Your task to perform on an android device: delete location history Image 0: 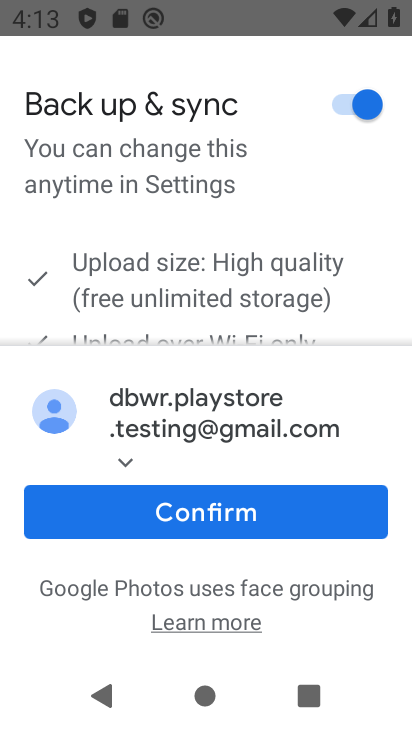
Step 0: press home button
Your task to perform on an android device: delete location history Image 1: 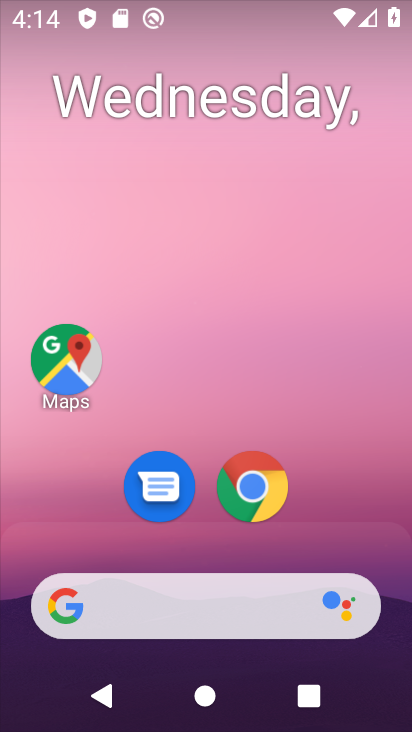
Step 1: click (66, 364)
Your task to perform on an android device: delete location history Image 2: 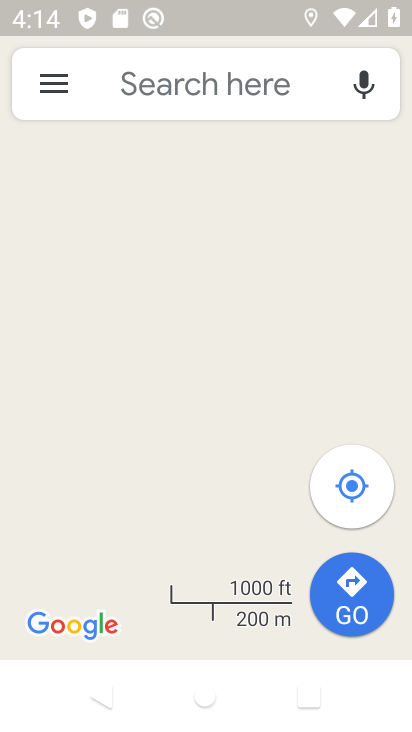
Step 2: click (50, 86)
Your task to perform on an android device: delete location history Image 3: 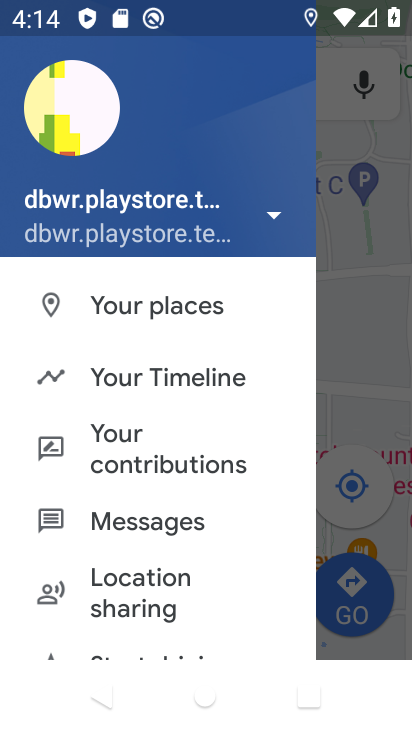
Step 3: drag from (122, 554) to (179, 385)
Your task to perform on an android device: delete location history Image 4: 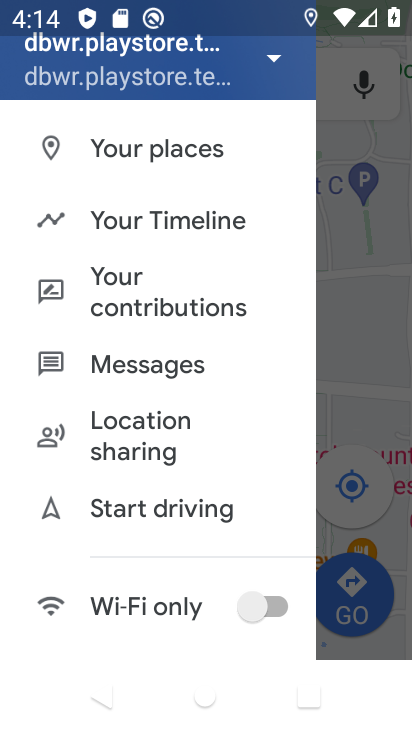
Step 4: drag from (128, 542) to (203, 402)
Your task to perform on an android device: delete location history Image 5: 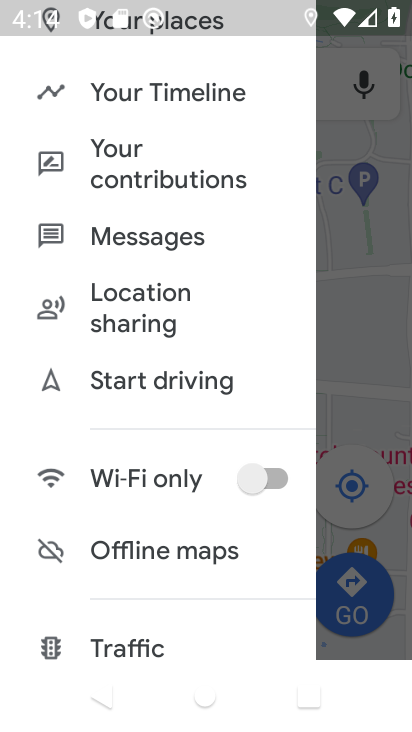
Step 5: drag from (144, 516) to (231, 372)
Your task to perform on an android device: delete location history Image 6: 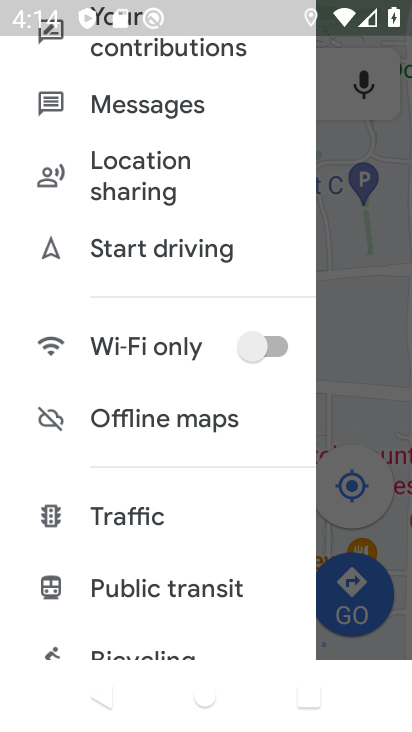
Step 6: drag from (136, 564) to (207, 346)
Your task to perform on an android device: delete location history Image 7: 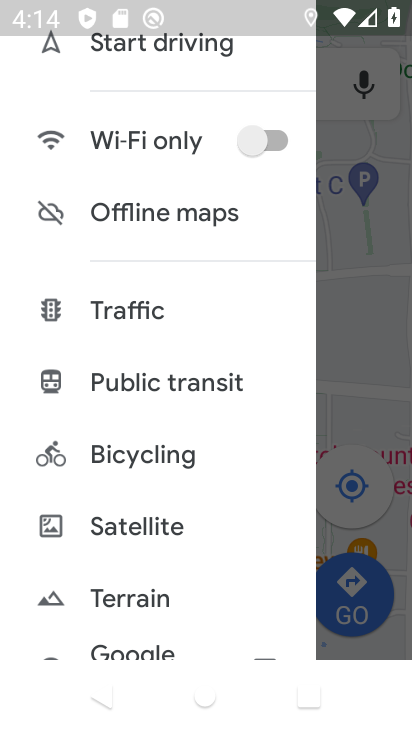
Step 7: drag from (136, 578) to (189, 430)
Your task to perform on an android device: delete location history Image 8: 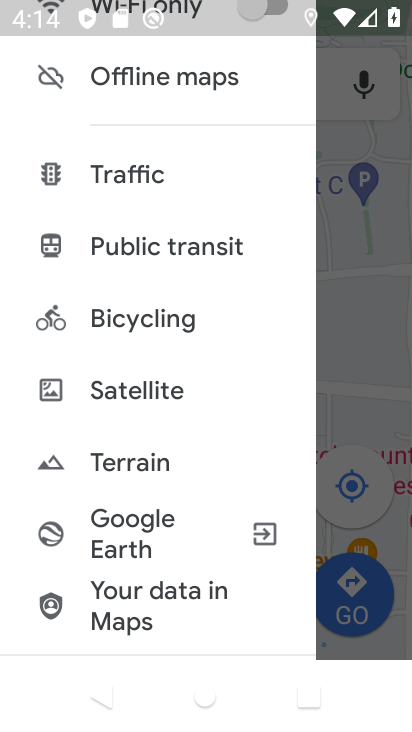
Step 8: drag from (139, 494) to (189, 395)
Your task to perform on an android device: delete location history Image 9: 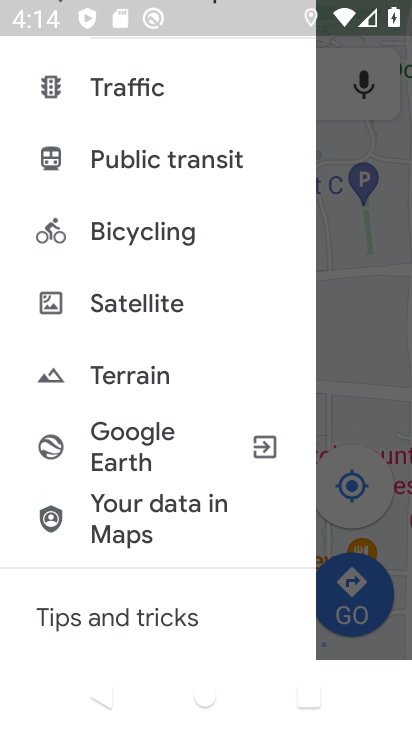
Step 9: drag from (114, 585) to (183, 373)
Your task to perform on an android device: delete location history Image 10: 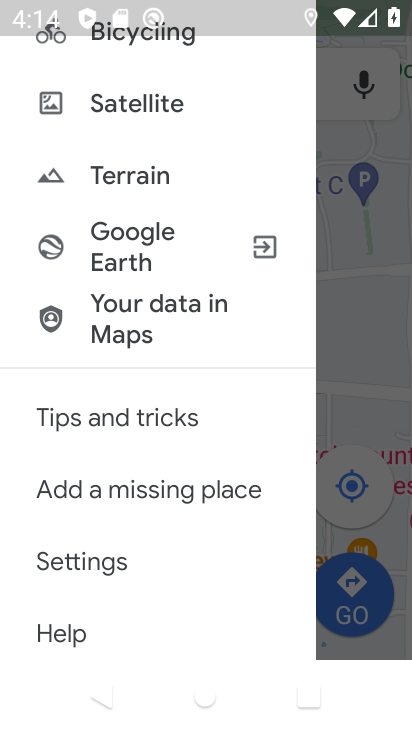
Step 10: click (95, 560)
Your task to perform on an android device: delete location history Image 11: 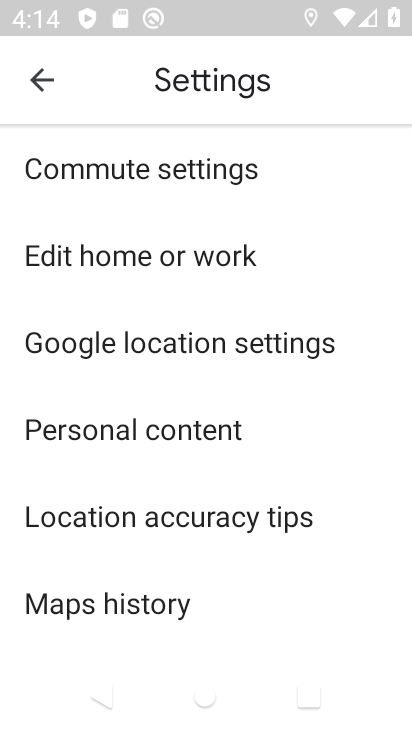
Step 11: click (163, 421)
Your task to perform on an android device: delete location history Image 12: 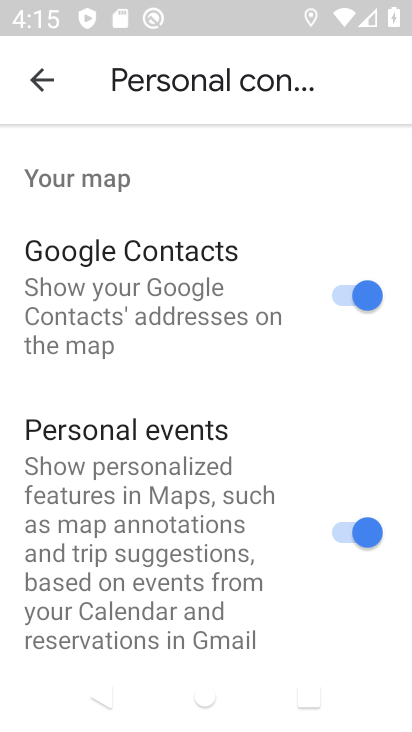
Step 12: drag from (146, 661) to (251, 419)
Your task to perform on an android device: delete location history Image 13: 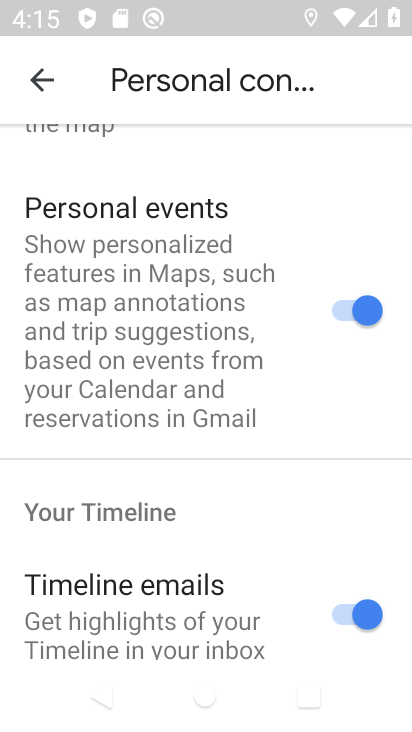
Step 13: drag from (157, 549) to (231, 301)
Your task to perform on an android device: delete location history Image 14: 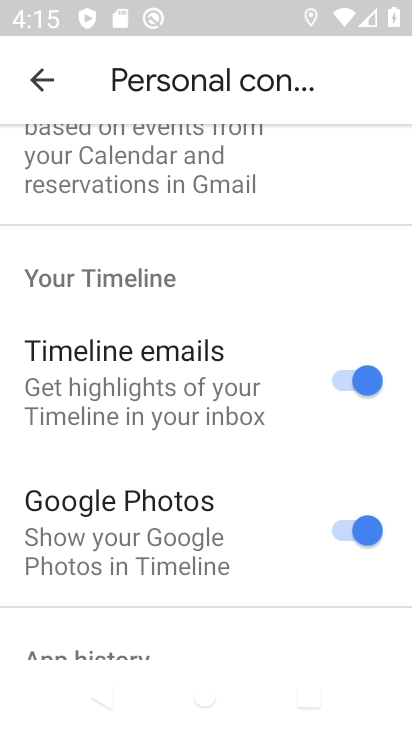
Step 14: drag from (147, 460) to (225, 258)
Your task to perform on an android device: delete location history Image 15: 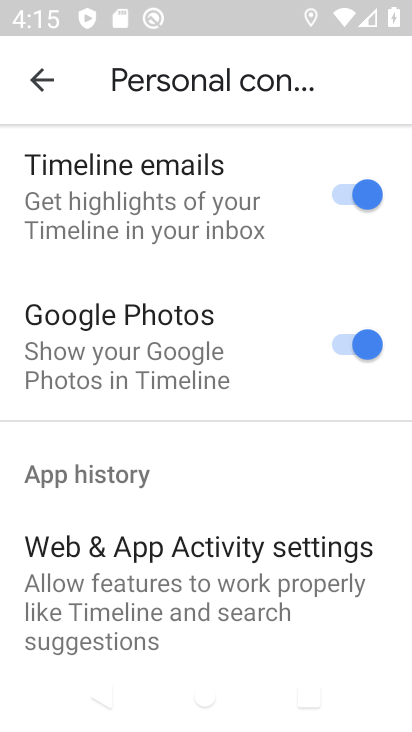
Step 15: drag from (173, 488) to (225, 219)
Your task to perform on an android device: delete location history Image 16: 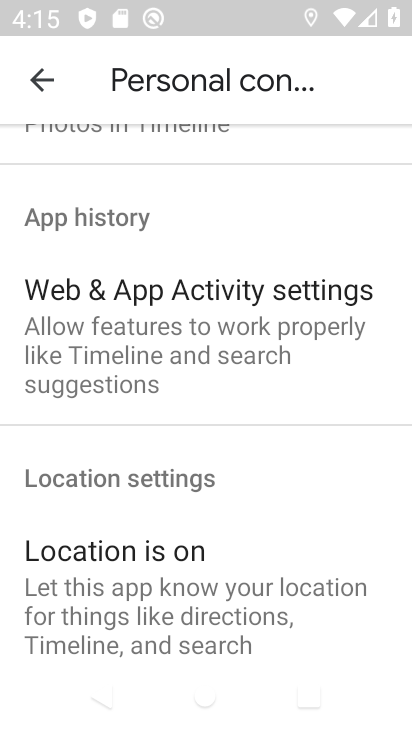
Step 16: drag from (113, 453) to (181, 273)
Your task to perform on an android device: delete location history Image 17: 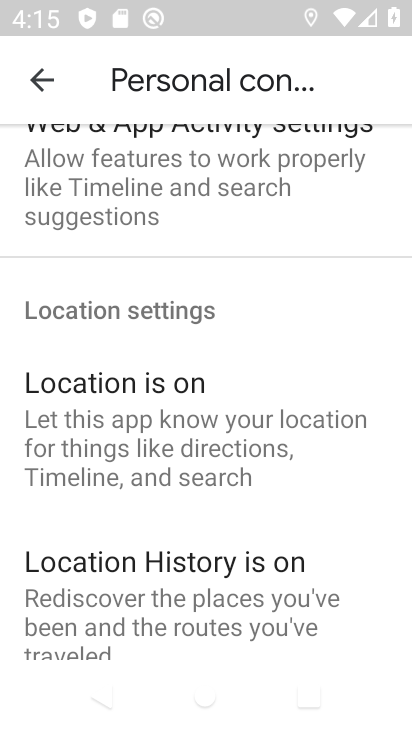
Step 17: drag from (85, 508) to (155, 298)
Your task to perform on an android device: delete location history Image 18: 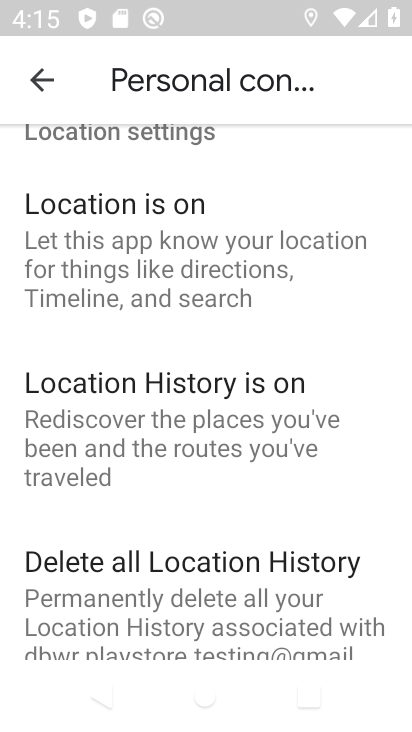
Step 18: drag from (126, 518) to (198, 307)
Your task to perform on an android device: delete location history Image 19: 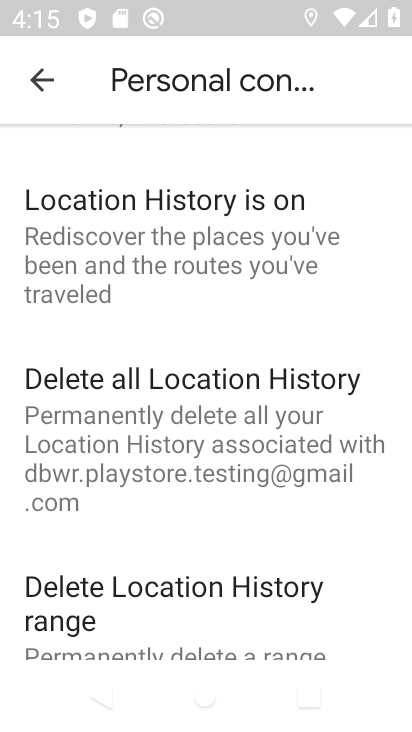
Step 19: click (187, 376)
Your task to perform on an android device: delete location history Image 20: 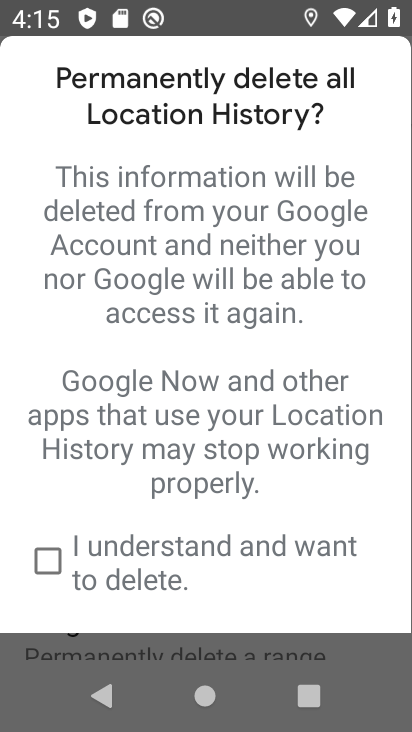
Step 20: click (52, 556)
Your task to perform on an android device: delete location history Image 21: 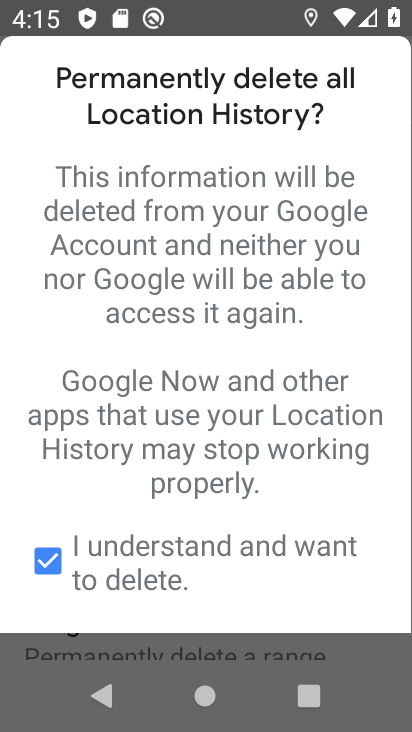
Step 21: click (296, 610)
Your task to perform on an android device: delete location history Image 22: 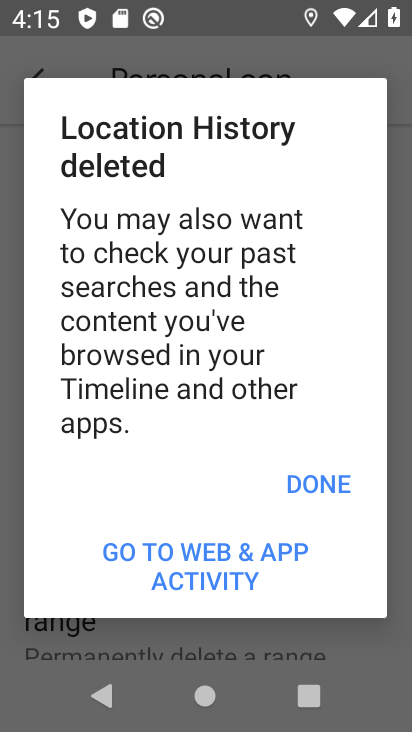
Step 22: click (337, 480)
Your task to perform on an android device: delete location history Image 23: 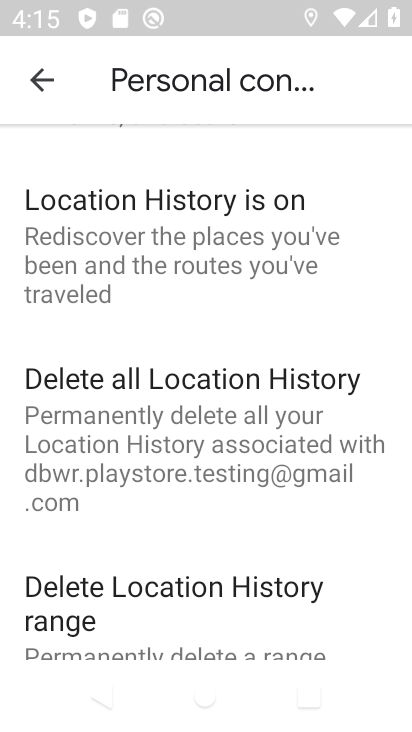
Step 23: task complete